Your task to perform on an android device: turn off location history Image 0: 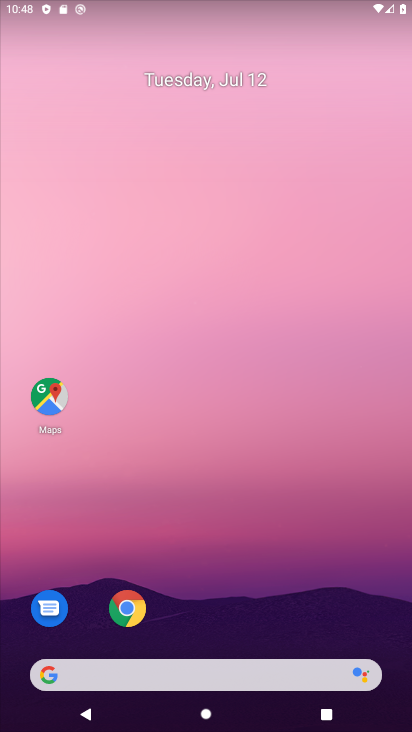
Step 0: click (187, 94)
Your task to perform on an android device: turn off location history Image 1: 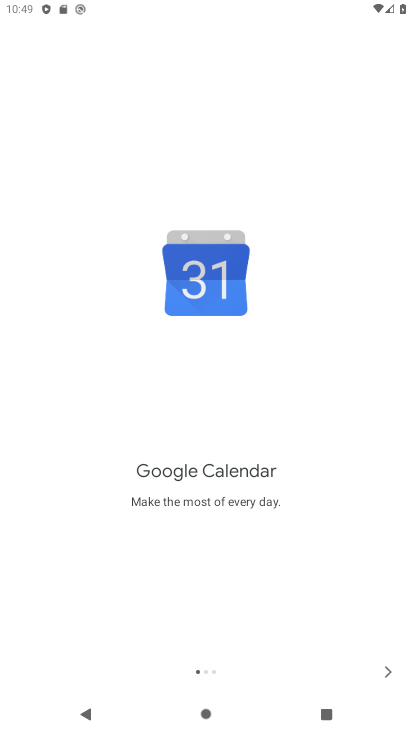
Step 1: drag from (228, 8) to (243, 603)
Your task to perform on an android device: turn off location history Image 2: 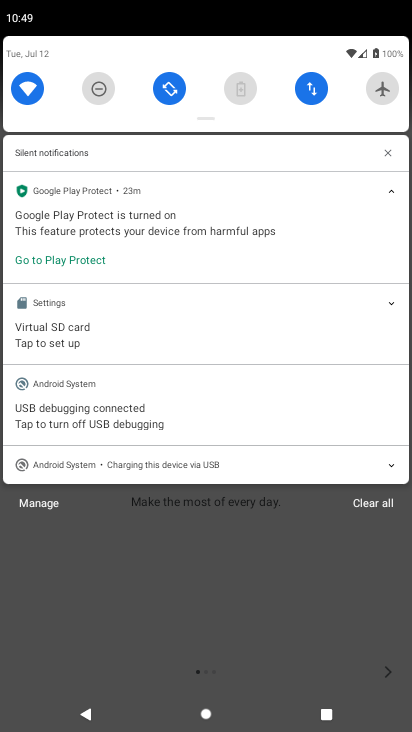
Step 2: drag from (205, 48) to (232, 634)
Your task to perform on an android device: turn off location history Image 3: 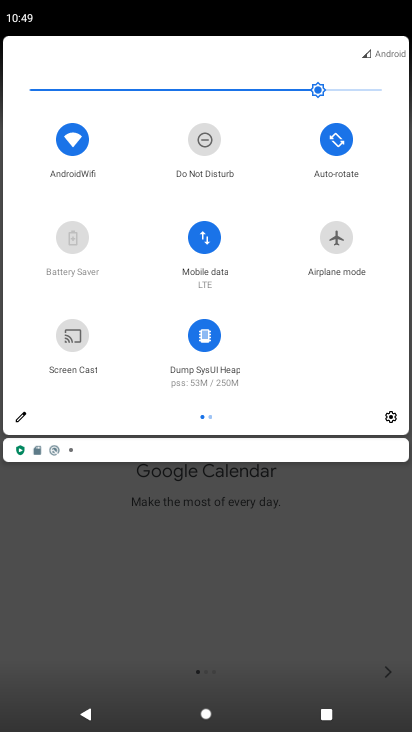
Step 3: click (391, 412)
Your task to perform on an android device: turn off location history Image 4: 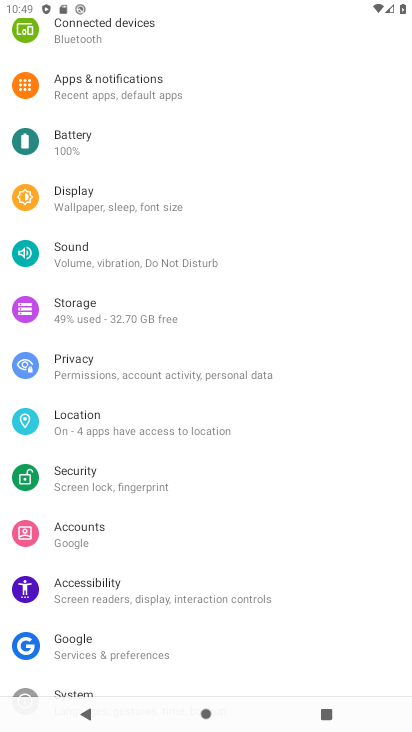
Step 4: drag from (151, 668) to (181, 395)
Your task to perform on an android device: turn off location history Image 5: 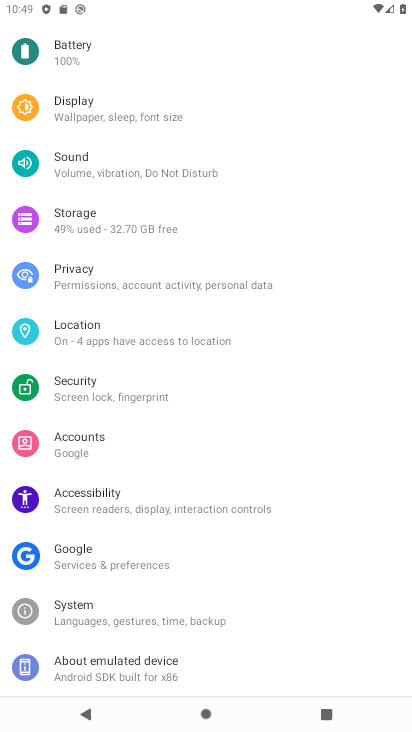
Step 5: click (151, 332)
Your task to perform on an android device: turn off location history Image 6: 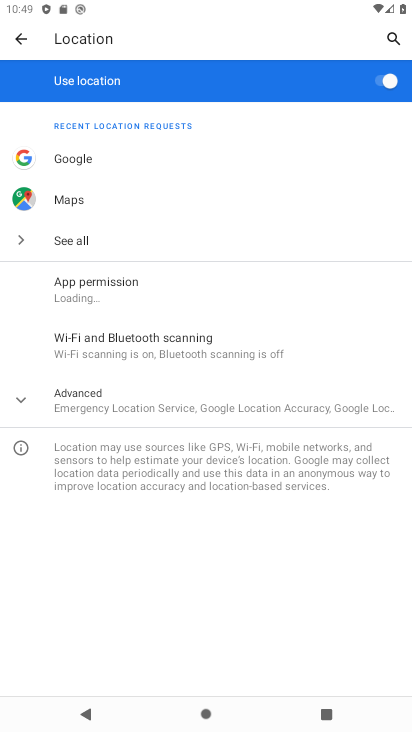
Step 6: click (157, 401)
Your task to perform on an android device: turn off location history Image 7: 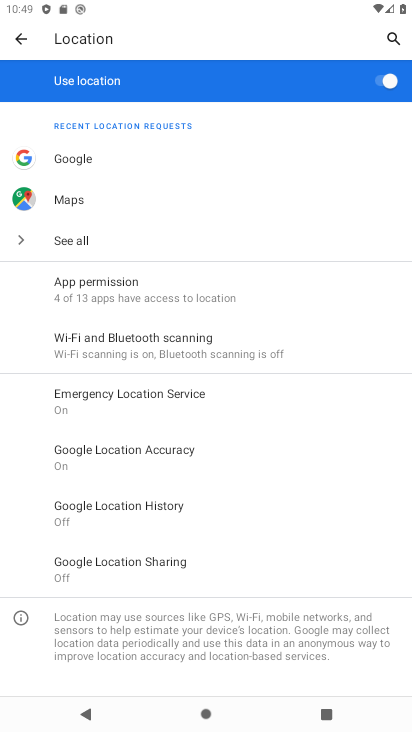
Step 7: click (204, 515)
Your task to perform on an android device: turn off location history Image 8: 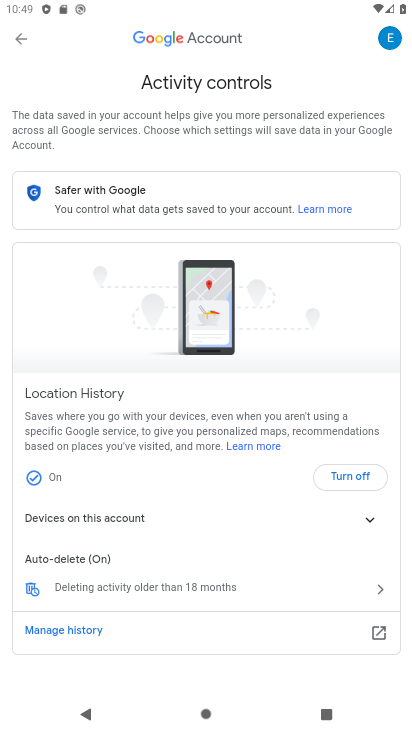
Step 8: click (347, 471)
Your task to perform on an android device: turn off location history Image 9: 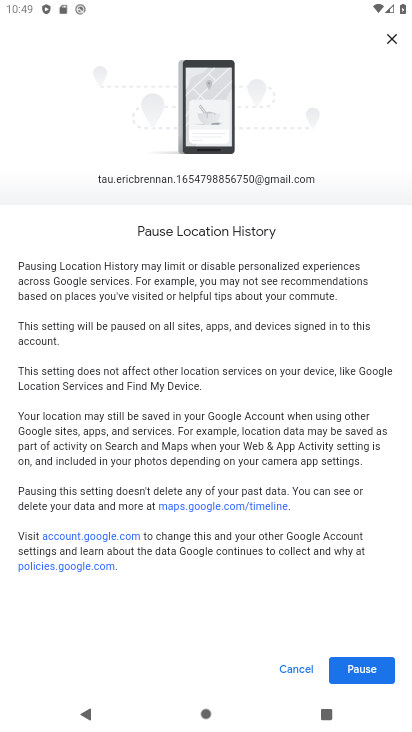
Step 9: click (370, 669)
Your task to perform on an android device: turn off location history Image 10: 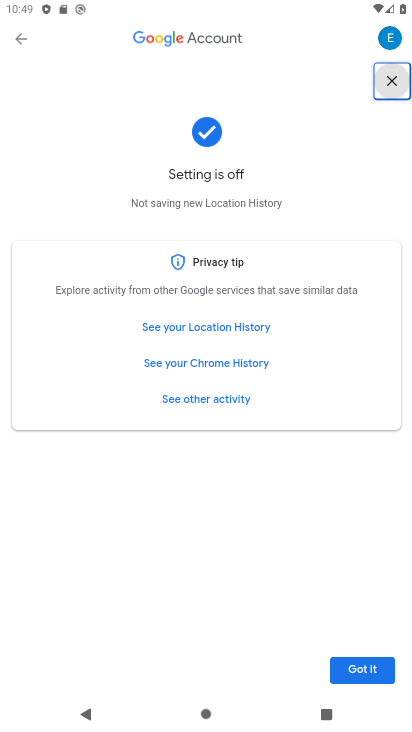
Step 10: click (370, 669)
Your task to perform on an android device: turn off location history Image 11: 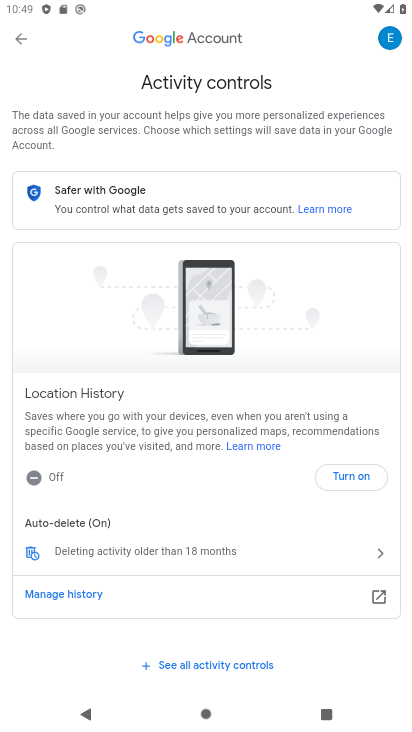
Step 11: task complete